Your task to perform on an android device: read, delete, or share a saved page in the chrome app Image 0: 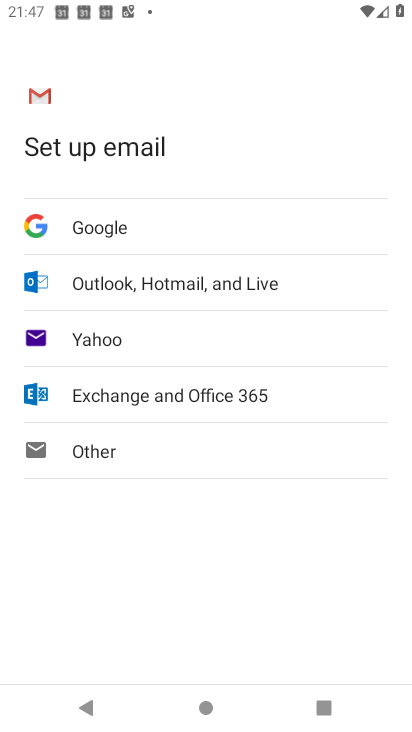
Step 0: press home button
Your task to perform on an android device: read, delete, or share a saved page in the chrome app Image 1: 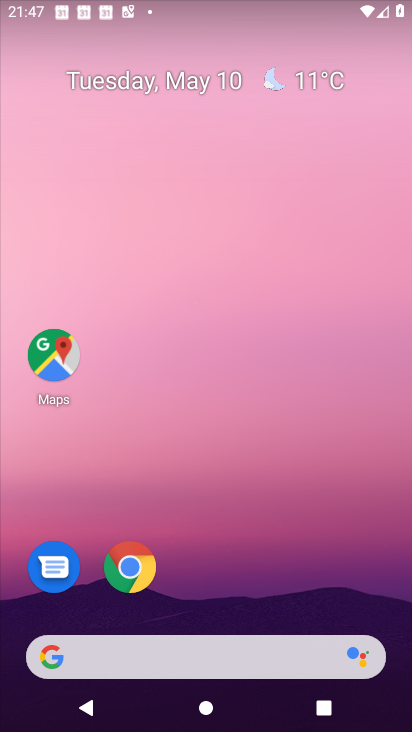
Step 1: drag from (114, 635) to (157, 296)
Your task to perform on an android device: read, delete, or share a saved page in the chrome app Image 2: 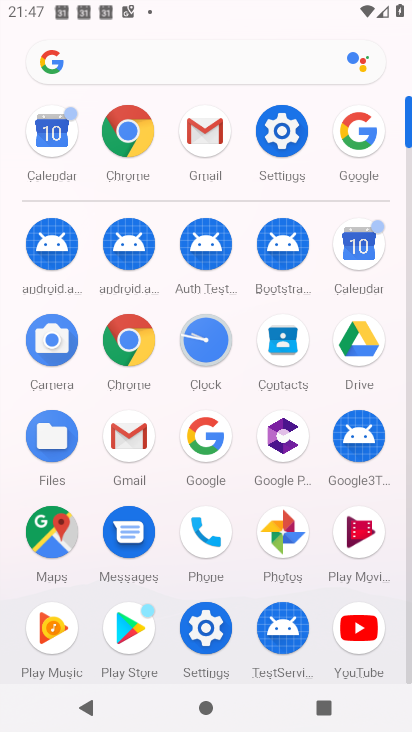
Step 2: click (134, 135)
Your task to perform on an android device: read, delete, or share a saved page in the chrome app Image 3: 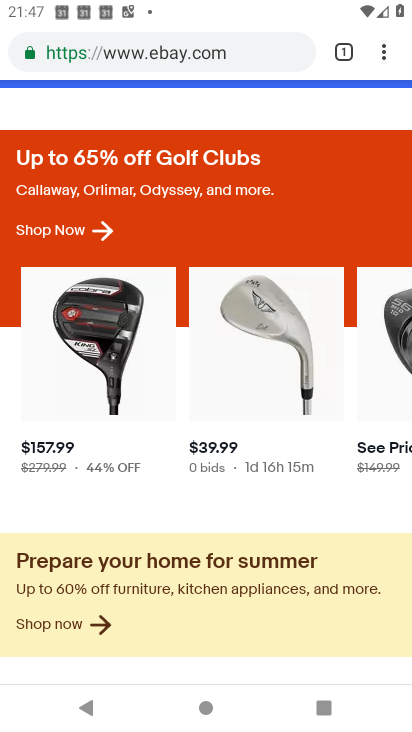
Step 3: click (381, 52)
Your task to perform on an android device: read, delete, or share a saved page in the chrome app Image 4: 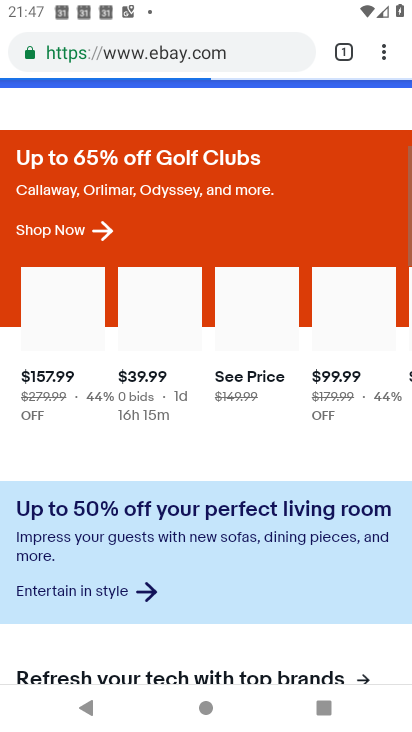
Step 4: click (381, 52)
Your task to perform on an android device: read, delete, or share a saved page in the chrome app Image 5: 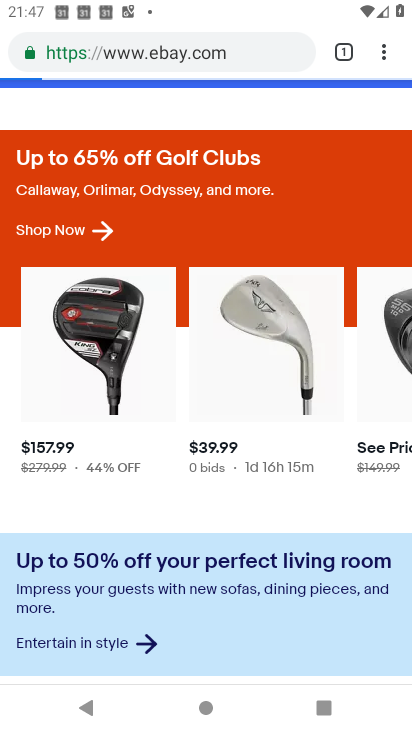
Step 5: click (389, 49)
Your task to perform on an android device: read, delete, or share a saved page in the chrome app Image 6: 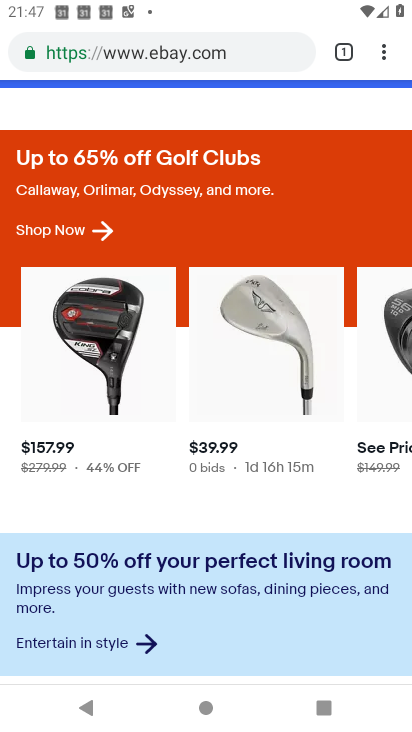
Step 6: click (389, 49)
Your task to perform on an android device: read, delete, or share a saved page in the chrome app Image 7: 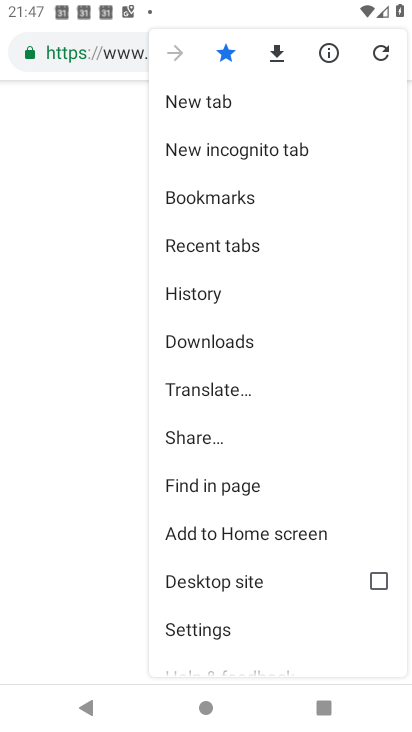
Step 7: drag from (219, 658) to (205, 400)
Your task to perform on an android device: read, delete, or share a saved page in the chrome app Image 8: 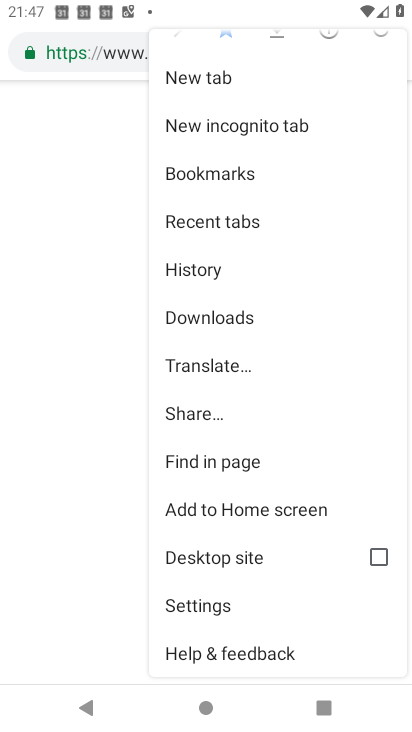
Step 8: click (205, 322)
Your task to perform on an android device: read, delete, or share a saved page in the chrome app Image 9: 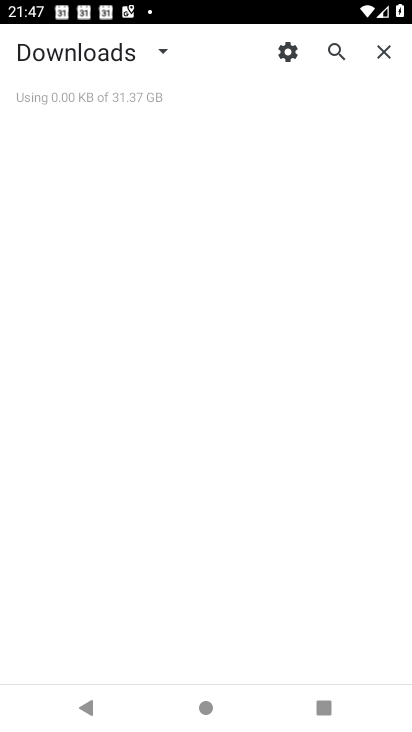
Step 9: click (161, 52)
Your task to perform on an android device: read, delete, or share a saved page in the chrome app Image 10: 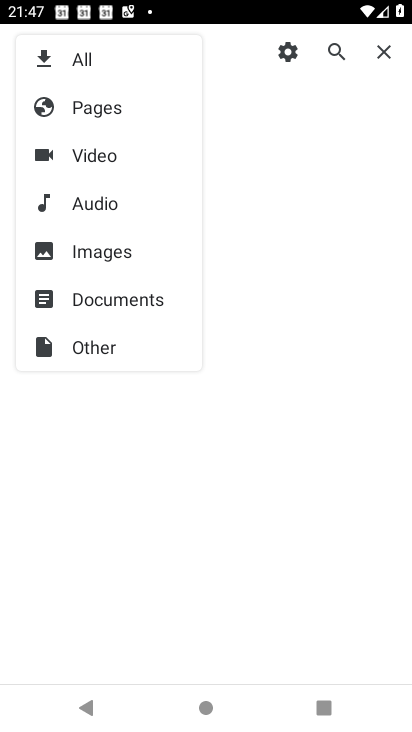
Step 10: click (111, 112)
Your task to perform on an android device: read, delete, or share a saved page in the chrome app Image 11: 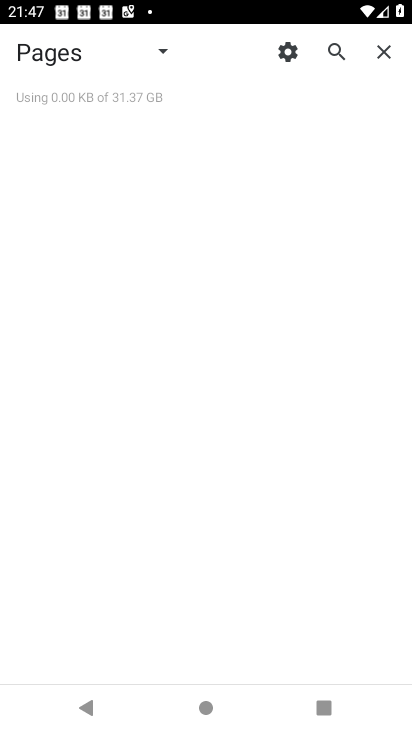
Step 11: task complete